Your task to perform on an android device: turn on priority inbox in the gmail app Image 0: 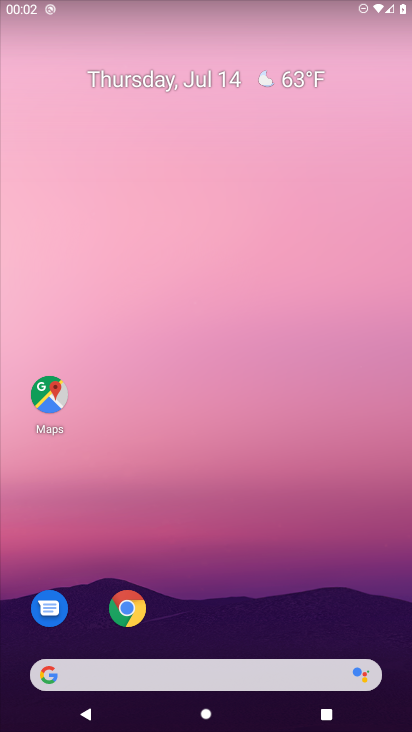
Step 0: press home button
Your task to perform on an android device: turn on priority inbox in the gmail app Image 1: 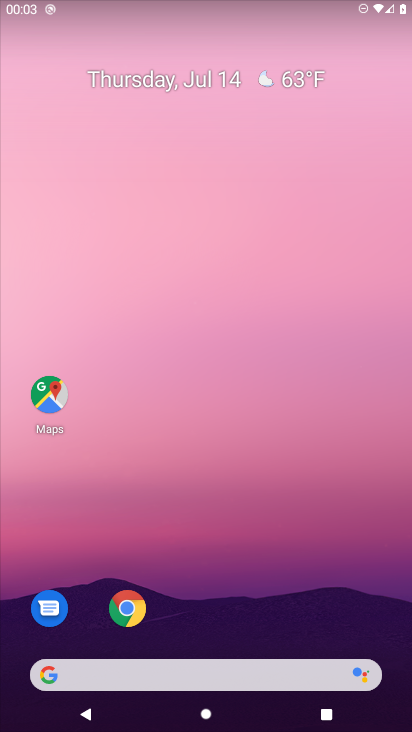
Step 1: drag from (236, 642) to (169, 128)
Your task to perform on an android device: turn on priority inbox in the gmail app Image 2: 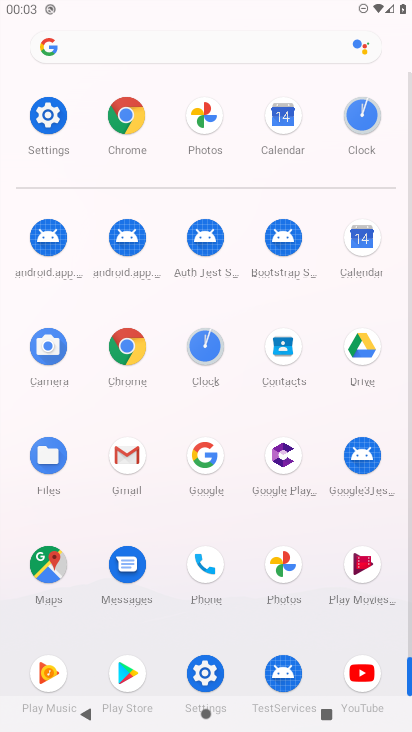
Step 2: click (127, 456)
Your task to perform on an android device: turn on priority inbox in the gmail app Image 3: 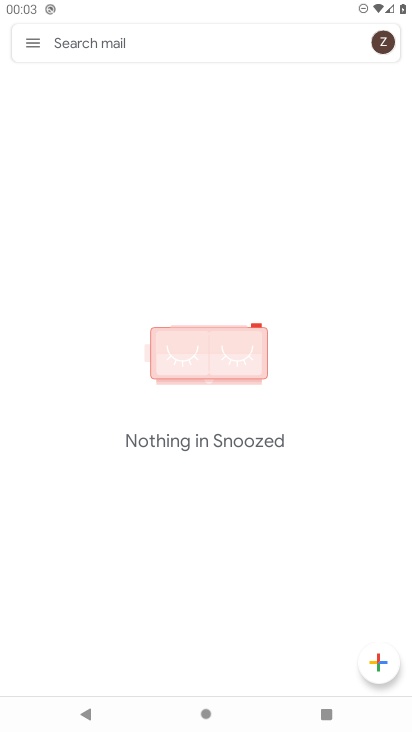
Step 3: click (30, 48)
Your task to perform on an android device: turn on priority inbox in the gmail app Image 4: 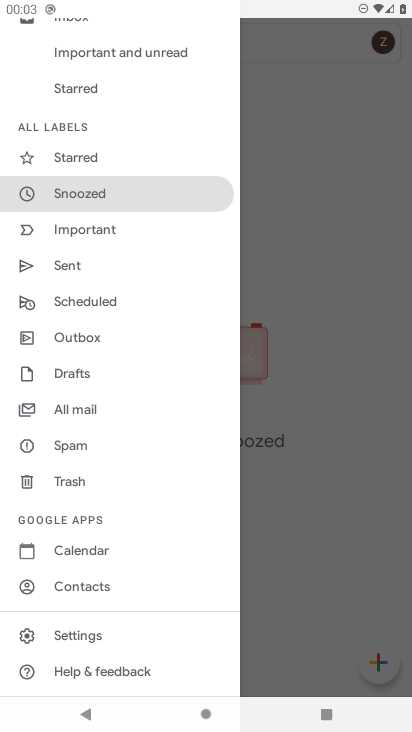
Step 4: click (86, 641)
Your task to perform on an android device: turn on priority inbox in the gmail app Image 5: 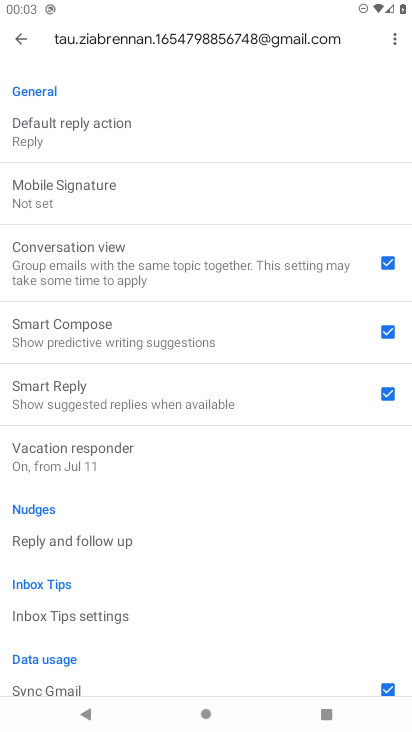
Step 5: drag from (190, 121) to (303, 707)
Your task to perform on an android device: turn on priority inbox in the gmail app Image 6: 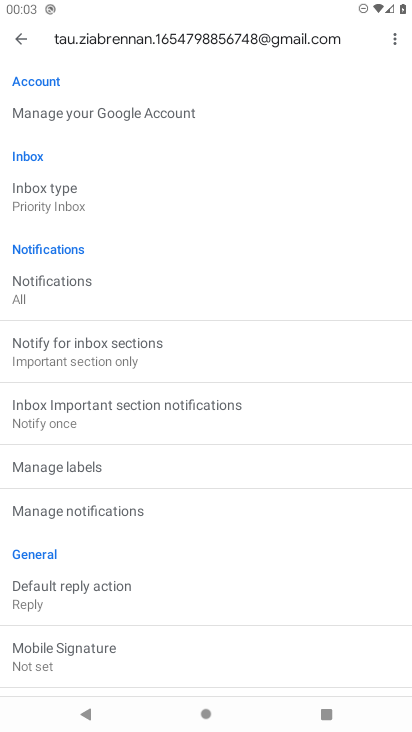
Step 6: click (29, 188)
Your task to perform on an android device: turn on priority inbox in the gmail app Image 7: 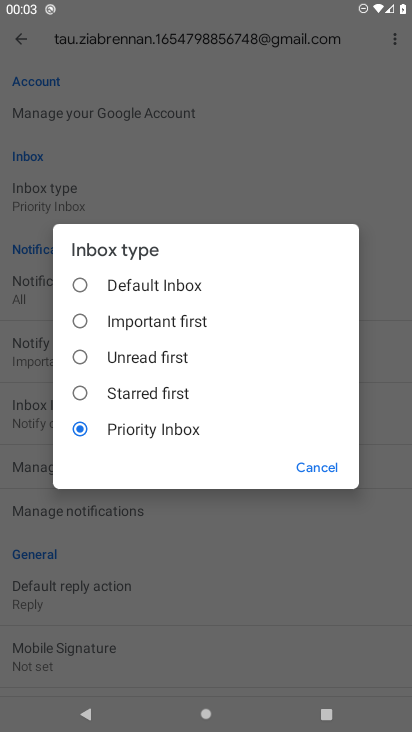
Step 7: task complete